Your task to perform on an android device: Open ESPN.com Image 0: 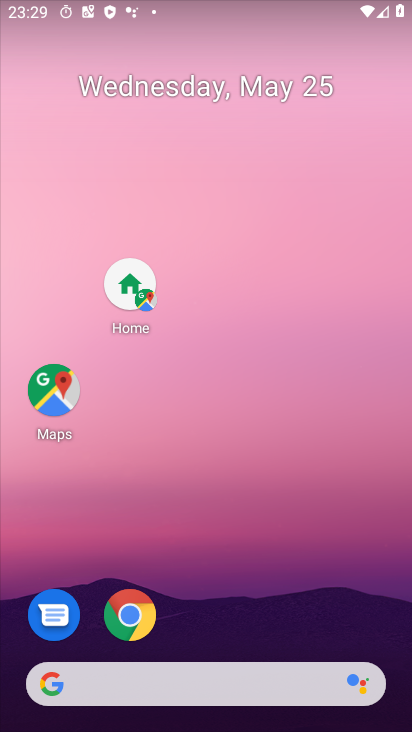
Step 0: press home button
Your task to perform on an android device: Open ESPN.com Image 1: 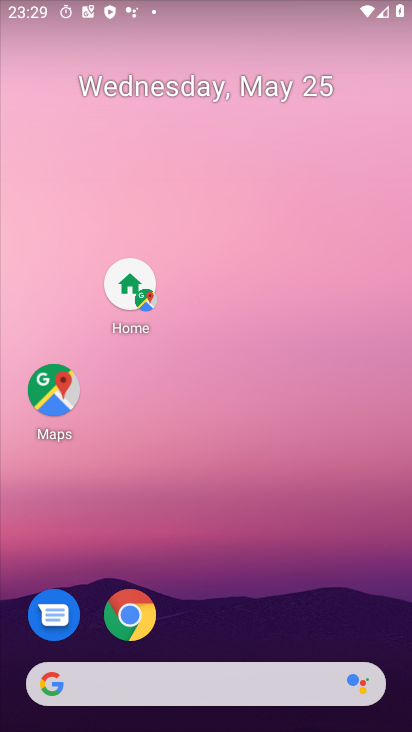
Step 1: click (61, 685)
Your task to perform on an android device: Open ESPN.com Image 2: 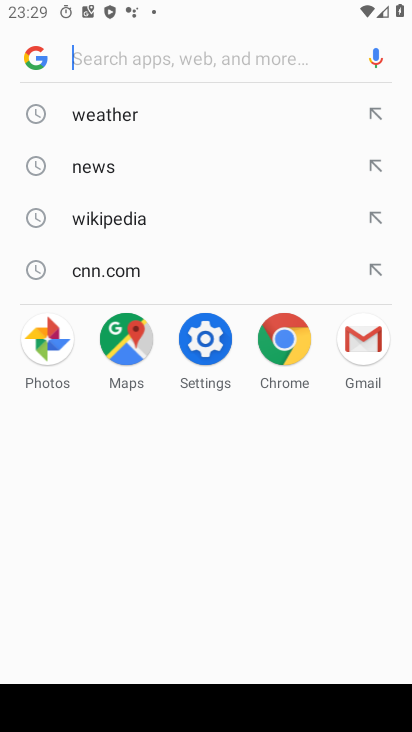
Step 2: type " ESPN.com"
Your task to perform on an android device: Open ESPN.com Image 3: 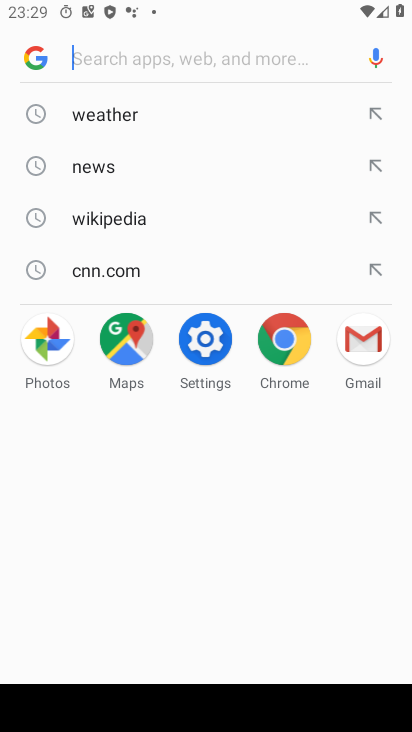
Step 3: click (158, 61)
Your task to perform on an android device: Open ESPN.com Image 4: 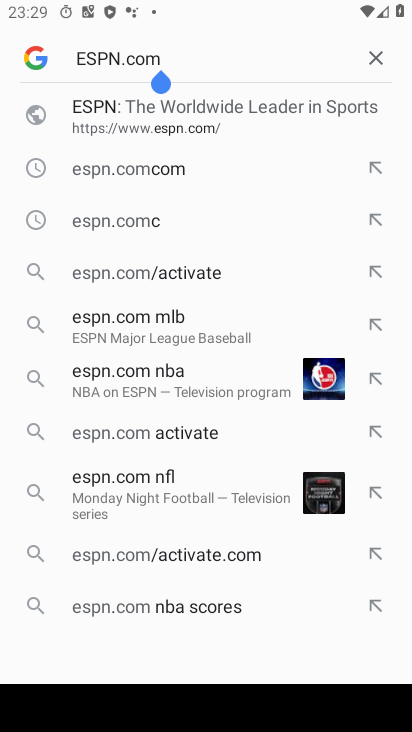
Step 4: click (143, 110)
Your task to perform on an android device: Open ESPN.com Image 5: 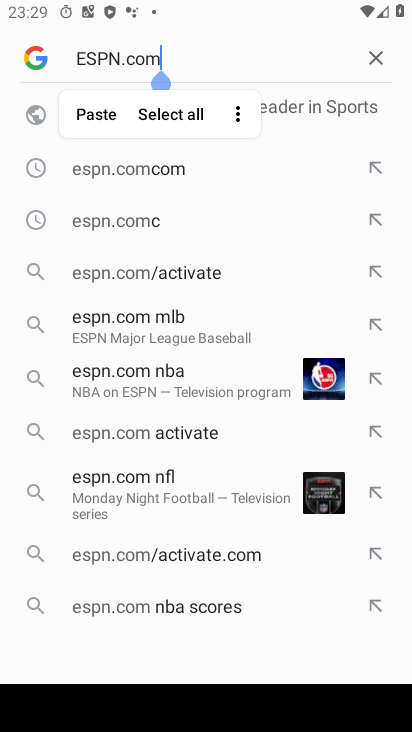
Step 5: click (300, 104)
Your task to perform on an android device: Open ESPN.com Image 6: 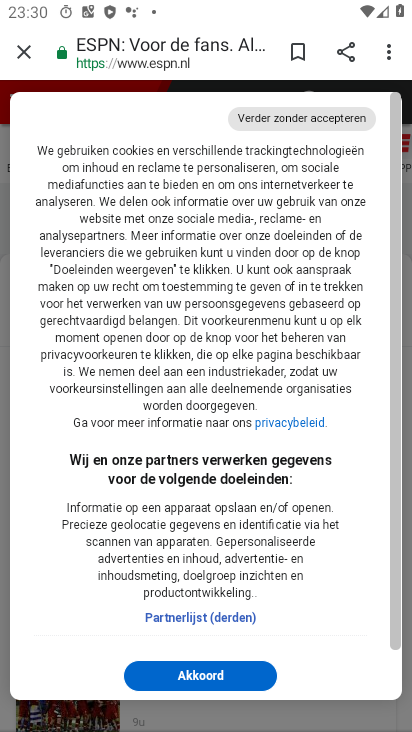
Step 6: task complete